Your task to perform on an android device: manage bookmarks in the chrome app Image 0: 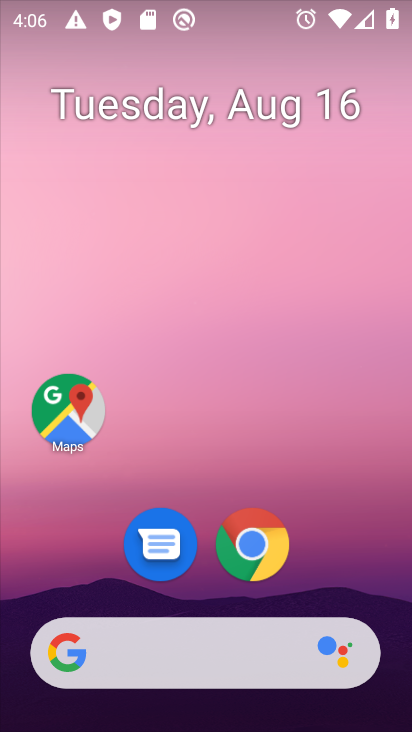
Step 0: click (251, 560)
Your task to perform on an android device: manage bookmarks in the chrome app Image 1: 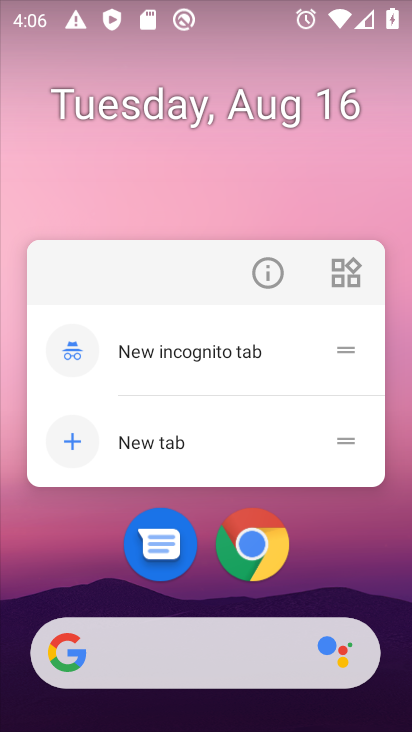
Step 1: click (251, 560)
Your task to perform on an android device: manage bookmarks in the chrome app Image 2: 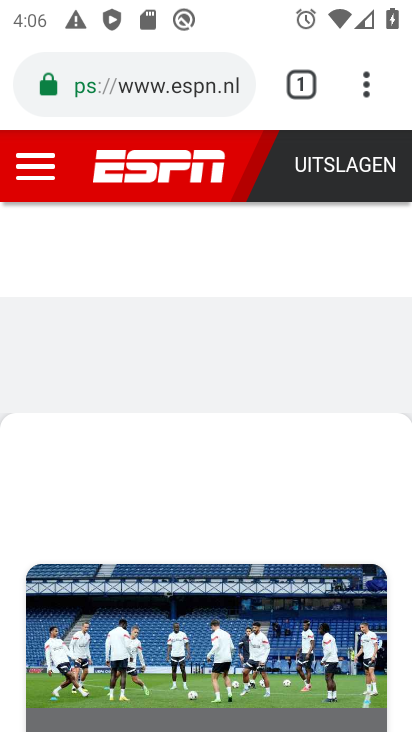
Step 2: click (364, 72)
Your task to perform on an android device: manage bookmarks in the chrome app Image 3: 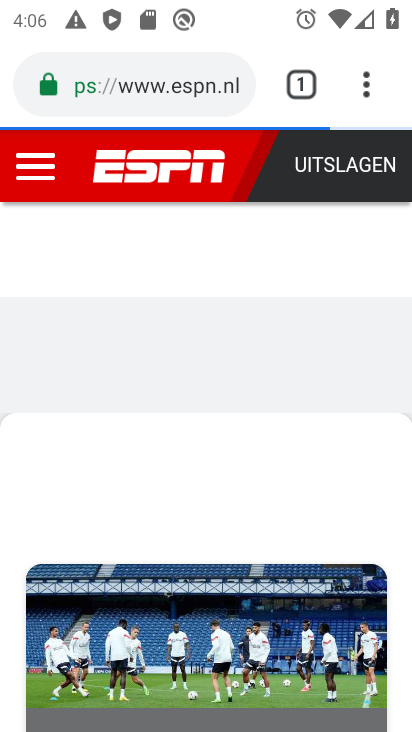
Step 3: click (361, 96)
Your task to perform on an android device: manage bookmarks in the chrome app Image 4: 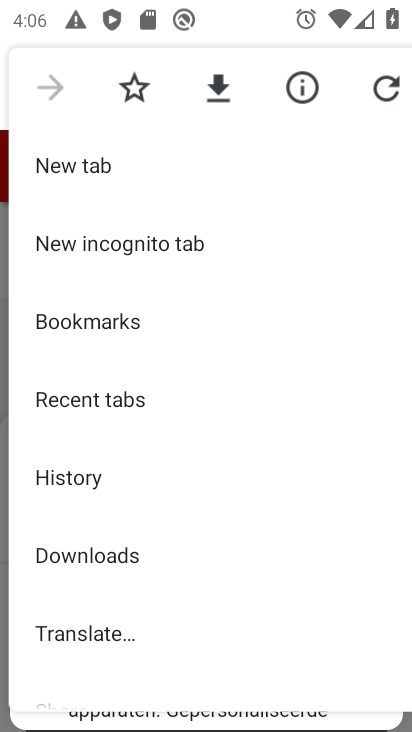
Step 4: click (73, 336)
Your task to perform on an android device: manage bookmarks in the chrome app Image 5: 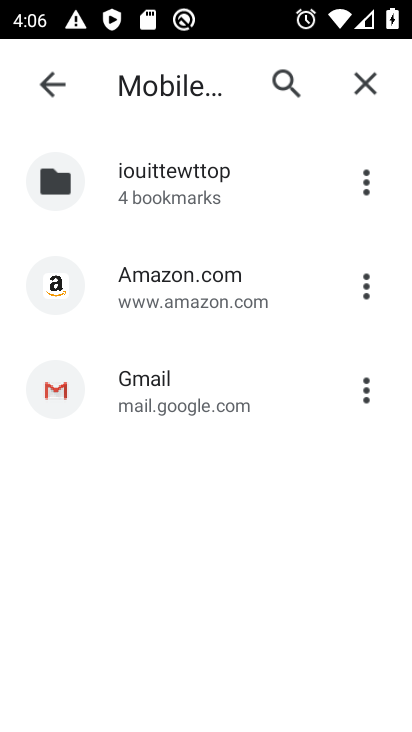
Step 5: click (368, 392)
Your task to perform on an android device: manage bookmarks in the chrome app Image 6: 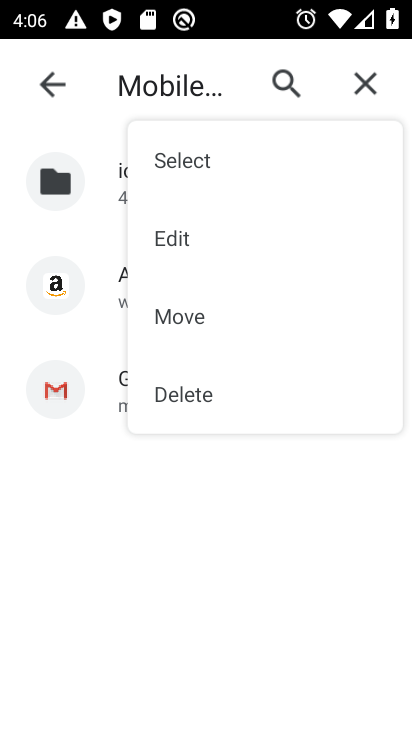
Step 6: click (226, 385)
Your task to perform on an android device: manage bookmarks in the chrome app Image 7: 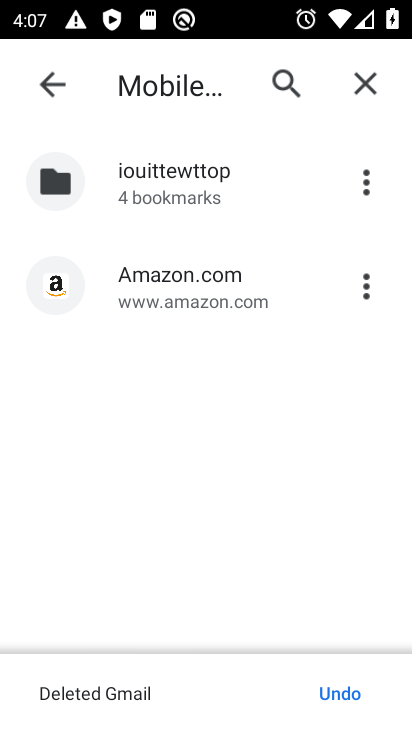
Step 7: task complete